Your task to perform on an android device: Go to Android settings Image 0: 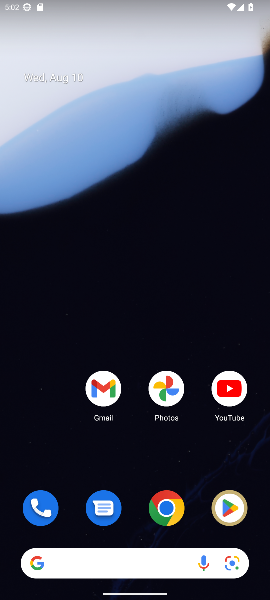
Step 0: press home button
Your task to perform on an android device: Go to Android settings Image 1: 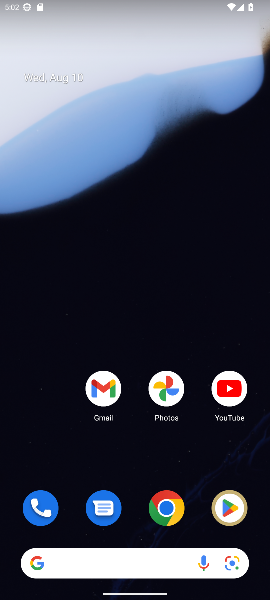
Step 1: drag from (144, 494) to (63, 35)
Your task to perform on an android device: Go to Android settings Image 2: 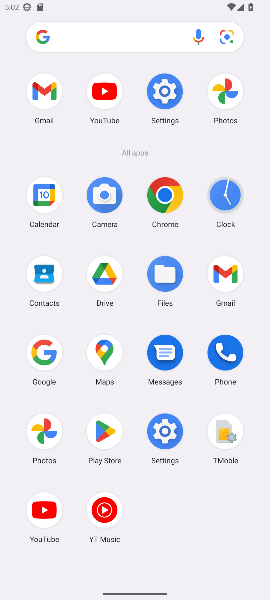
Step 2: click (159, 99)
Your task to perform on an android device: Go to Android settings Image 3: 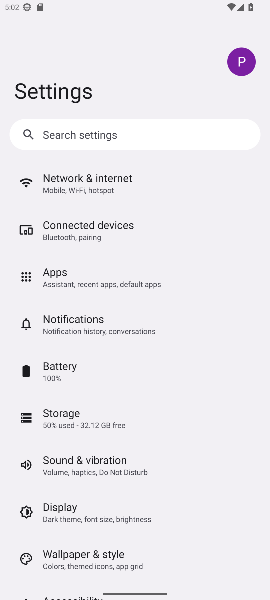
Step 3: task complete